Your task to perform on an android device: Open calendar and show me the fourth week of next month Image 0: 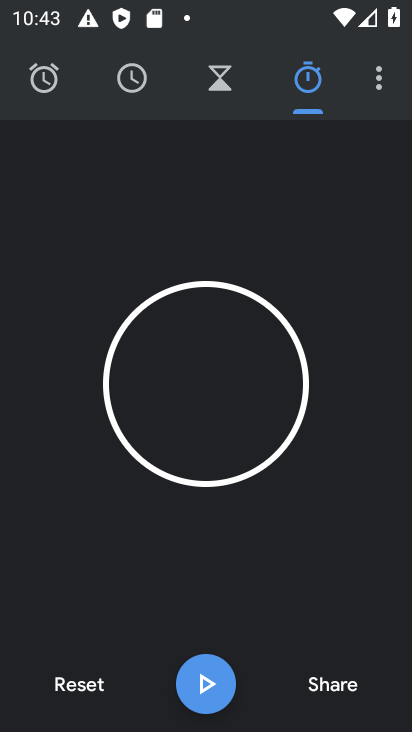
Step 0: press back button
Your task to perform on an android device: Open calendar and show me the fourth week of next month Image 1: 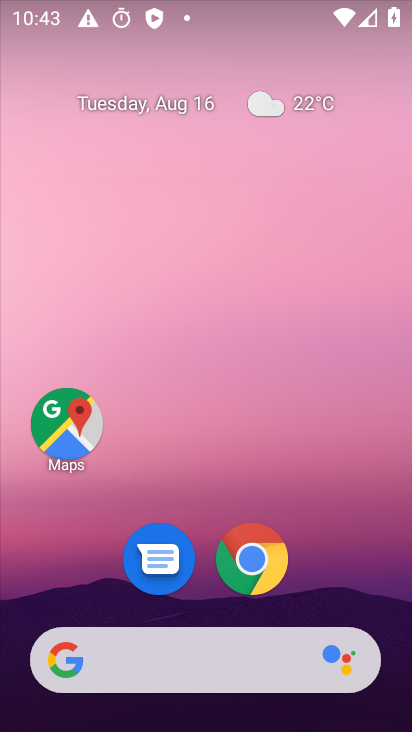
Step 1: drag from (191, 172) to (203, 121)
Your task to perform on an android device: Open calendar and show me the fourth week of next month Image 2: 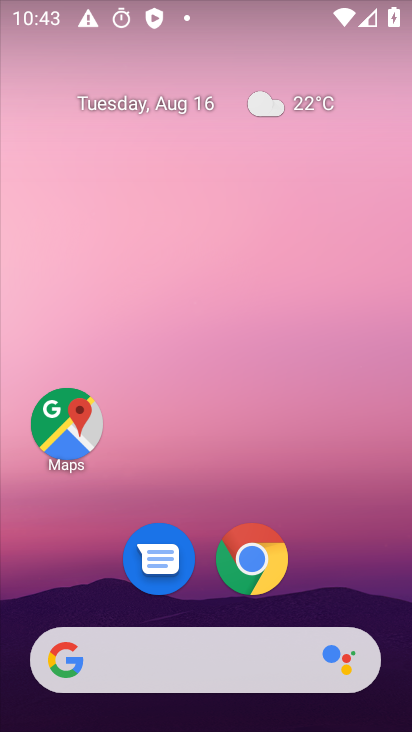
Step 2: drag from (200, 562) to (233, 208)
Your task to perform on an android device: Open calendar and show me the fourth week of next month Image 3: 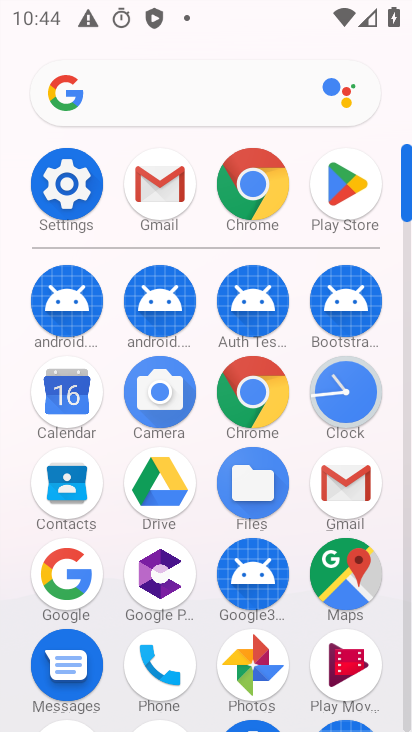
Step 3: click (68, 402)
Your task to perform on an android device: Open calendar and show me the fourth week of next month Image 4: 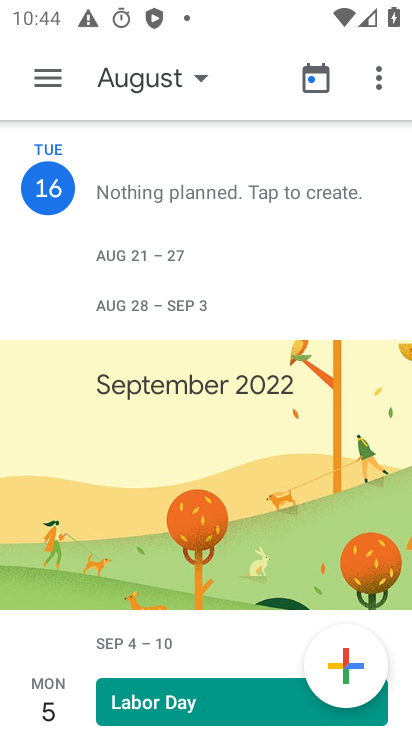
Step 4: click (52, 78)
Your task to perform on an android device: Open calendar and show me the fourth week of next month Image 5: 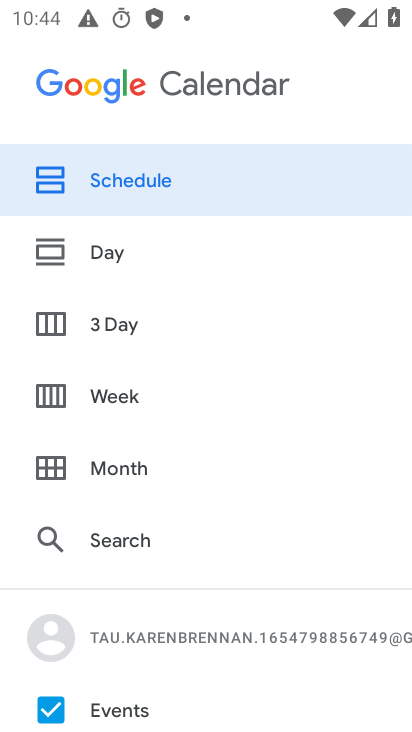
Step 5: click (104, 398)
Your task to perform on an android device: Open calendar and show me the fourth week of next month Image 6: 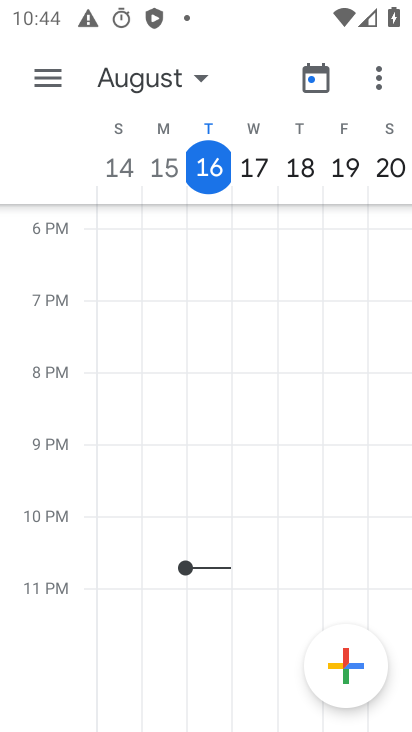
Step 6: click (149, 77)
Your task to perform on an android device: Open calendar and show me the fourth week of next month Image 7: 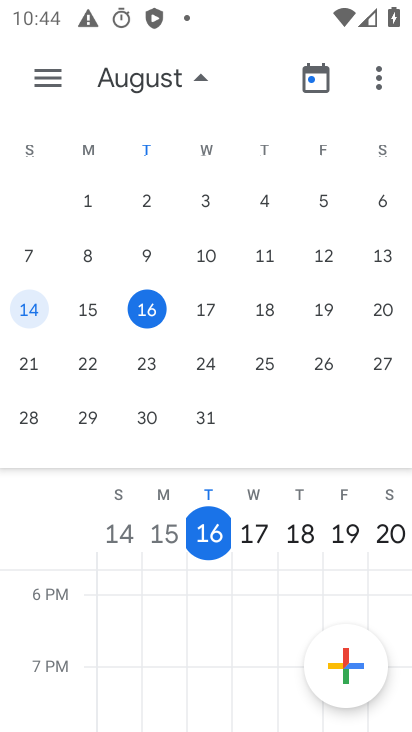
Step 7: drag from (329, 257) to (73, 267)
Your task to perform on an android device: Open calendar and show me the fourth week of next month Image 8: 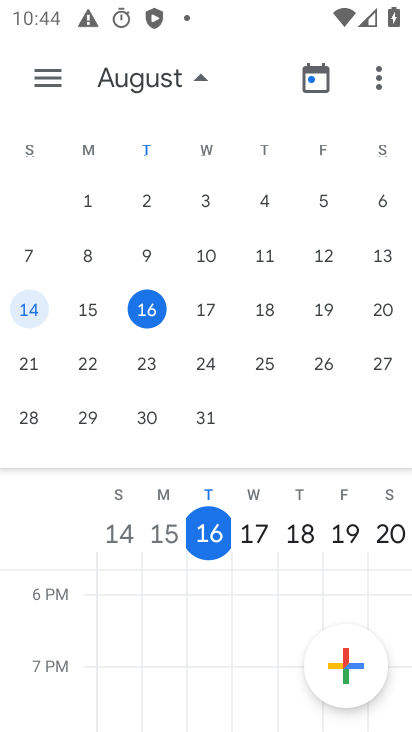
Step 8: drag from (330, 313) to (19, 271)
Your task to perform on an android device: Open calendar and show me the fourth week of next month Image 9: 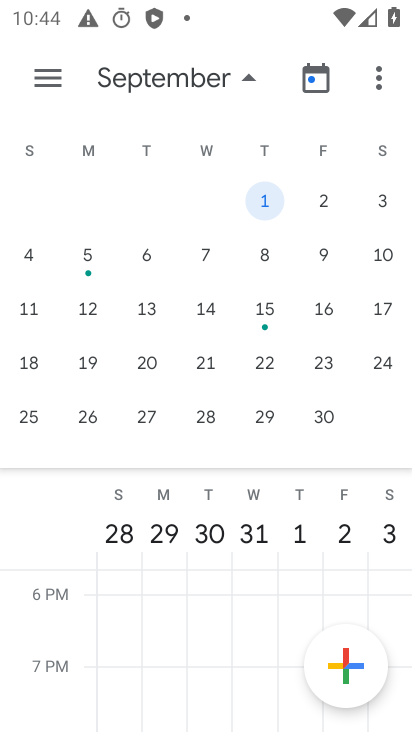
Step 9: click (33, 364)
Your task to perform on an android device: Open calendar and show me the fourth week of next month Image 10: 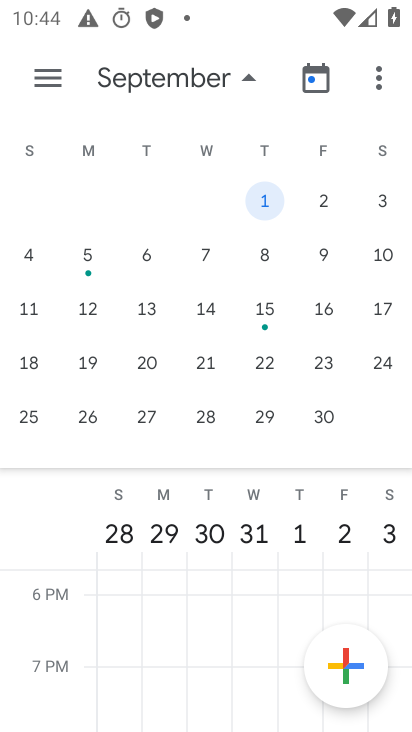
Step 10: click (28, 364)
Your task to perform on an android device: Open calendar and show me the fourth week of next month Image 11: 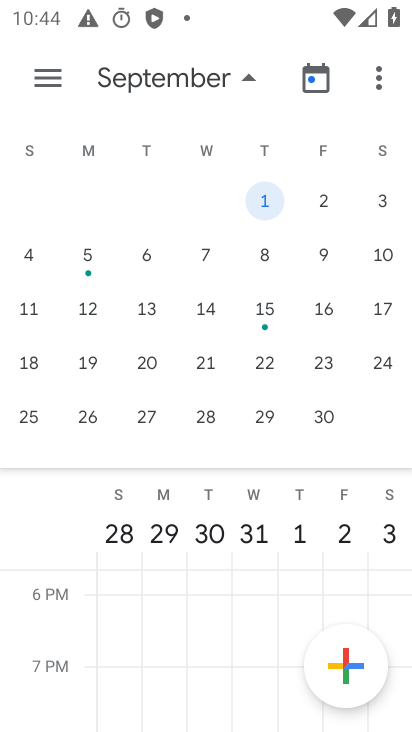
Step 11: click (30, 368)
Your task to perform on an android device: Open calendar and show me the fourth week of next month Image 12: 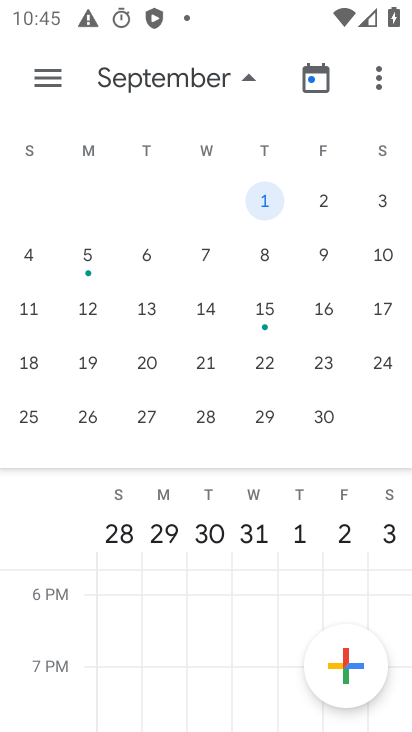
Step 12: click (35, 365)
Your task to perform on an android device: Open calendar and show me the fourth week of next month Image 13: 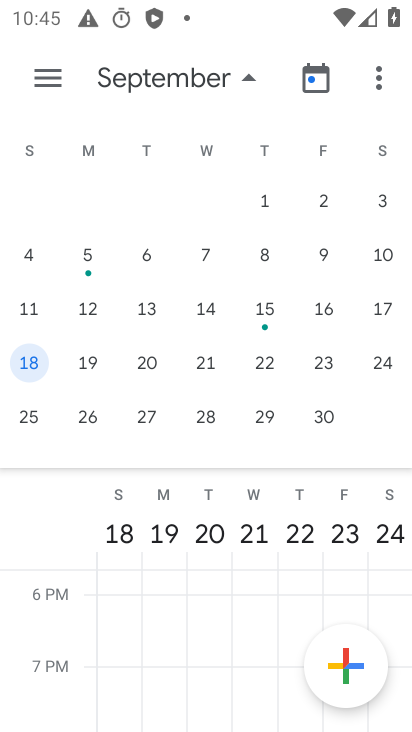
Step 13: task complete